Your task to perform on an android device: Clear the shopping cart on bestbuy.com. Search for "usb-b" on bestbuy.com, select the first entry, add it to the cart, then select checkout. Image 0: 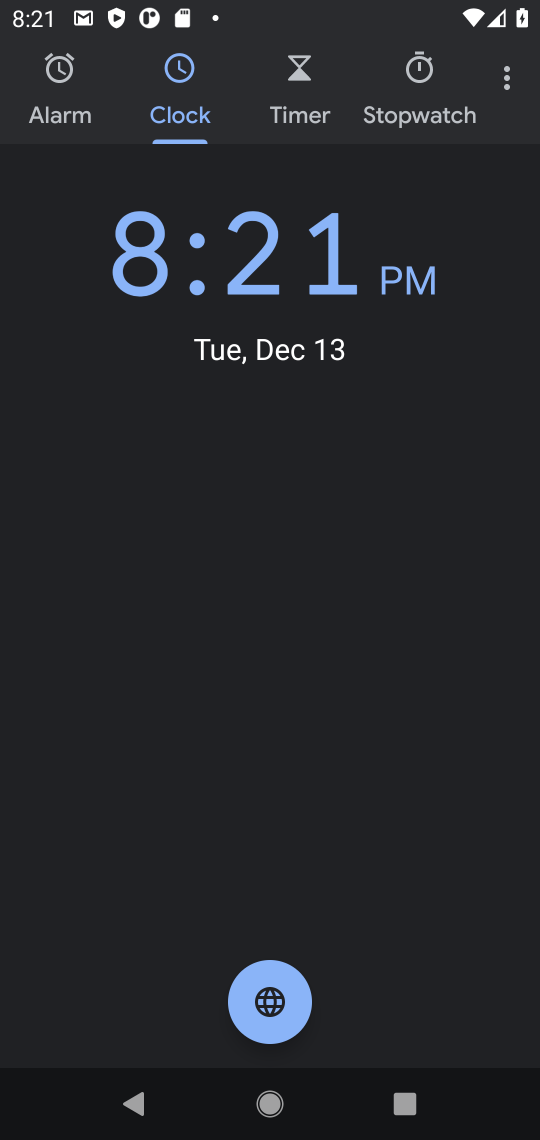
Step 0: press home button
Your task to perform on an android device: Clear the shopping cart on bestbuy.com. Search for "usb-b" on bestbuy.com, select the first entry, add it to the cart, then select checkout. Image 1: 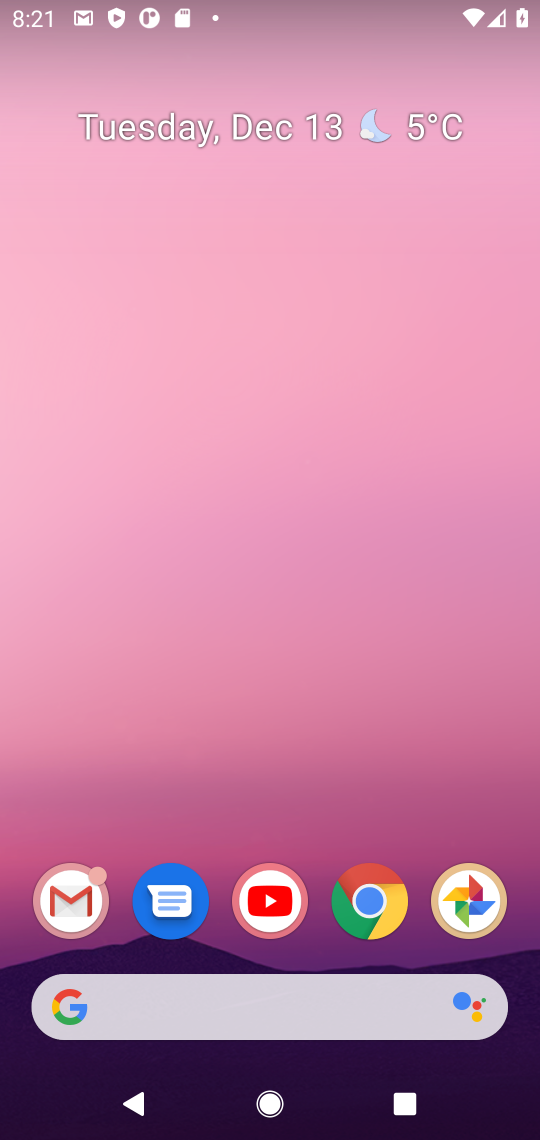
Step 1: click (367, 900)
Your task to perform on an android device: Clear the shopping cart on bestbuy.com. Search for "usb-b" on bestbuy.com, select the first entry, add it to the cart, then select checkout. Image 2: 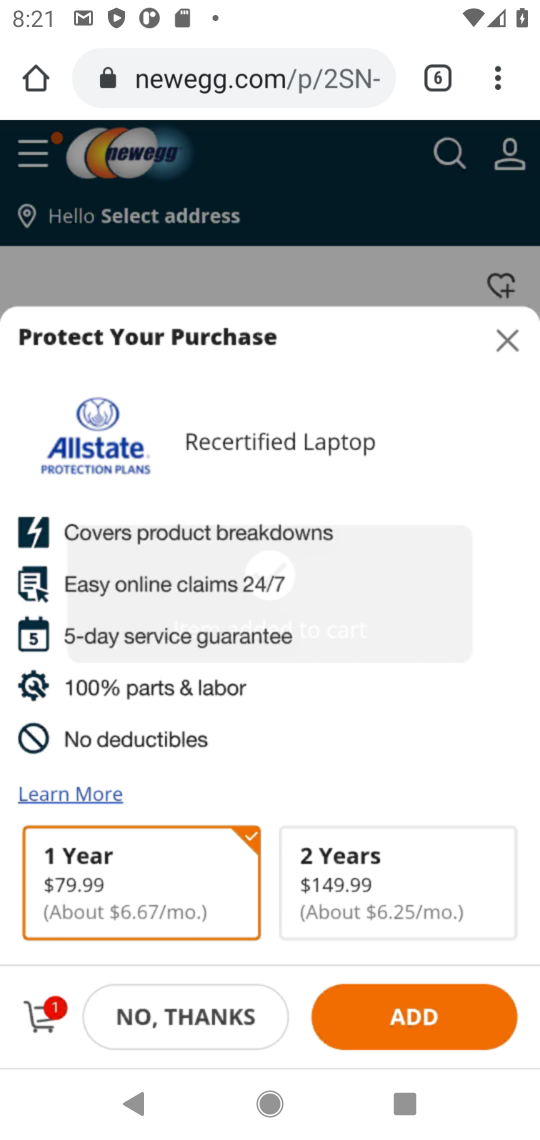
Step 2: click (440, 88)
Your task to perform on an android device: Clear the shopping cart on bestbuy.com. Search for "usb-b" on bestbuy.com, select the first entry, add it to the cart, then select checkout. Image 3: 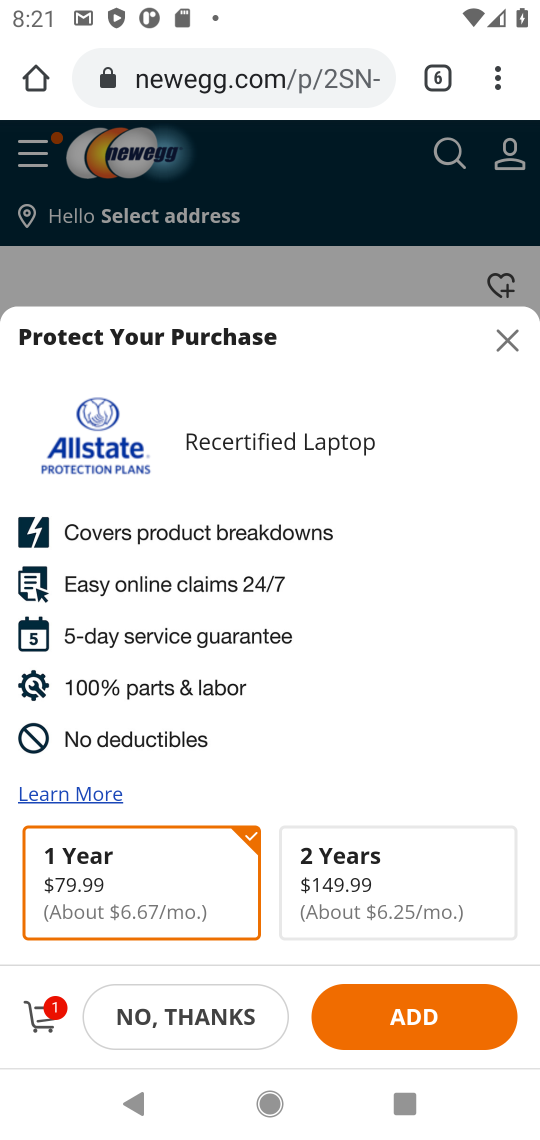
Step 3: click (443, 73)
Your task to perform on an android device: Clear the shopping cart on bestbuy.com. Search for "usb-b" on bestbuy.com, select the first entry, add it to the cart, then select checkout. Image 4: 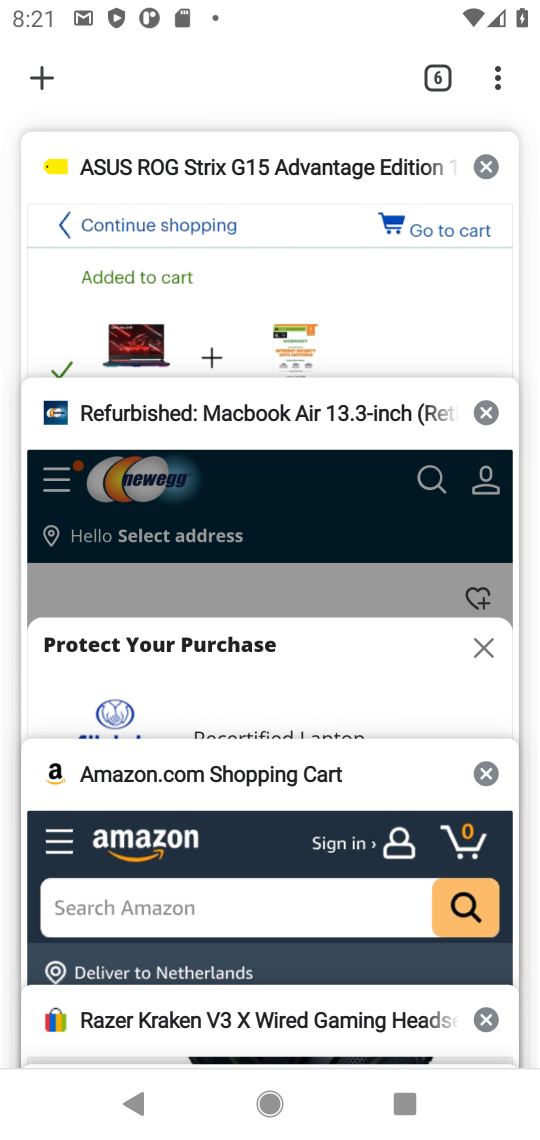
Step 4: click (259, 228)
Your task to perform on an android device: Clear the shopping cart on bestbuy.com. Search for "usb-b" on bestbuy.com, select the first entry, add it to the cart, then select checkout. Image 5: 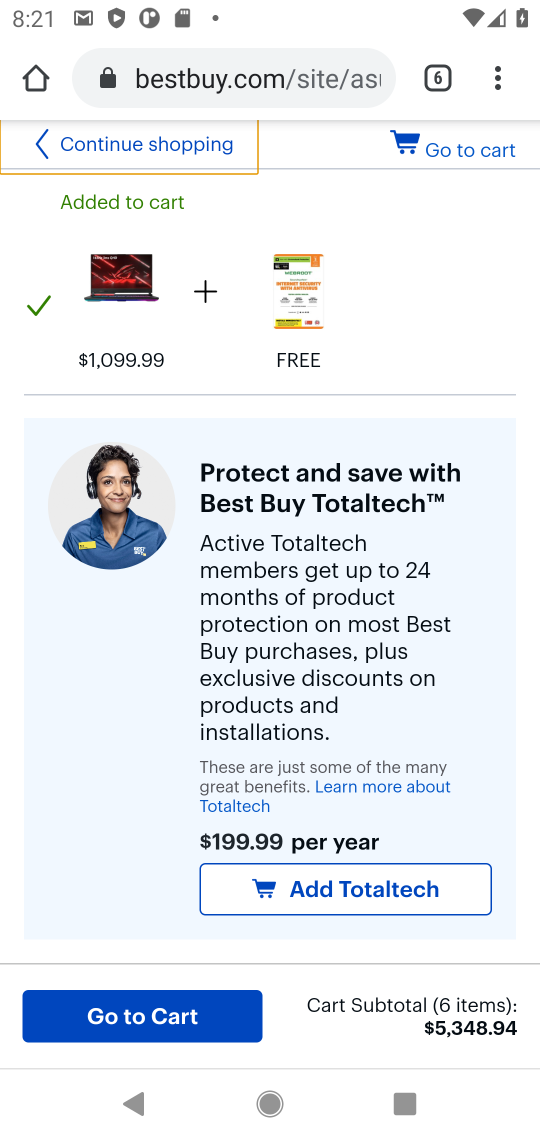
Step 5: click (196, 146)
Your task to perform on an android device: Clear the shopping cart on bestbuy.com. Search for "usb-b" on bestbuy.com, select the first entry, add it to the cart, then select checkout. Image 6: 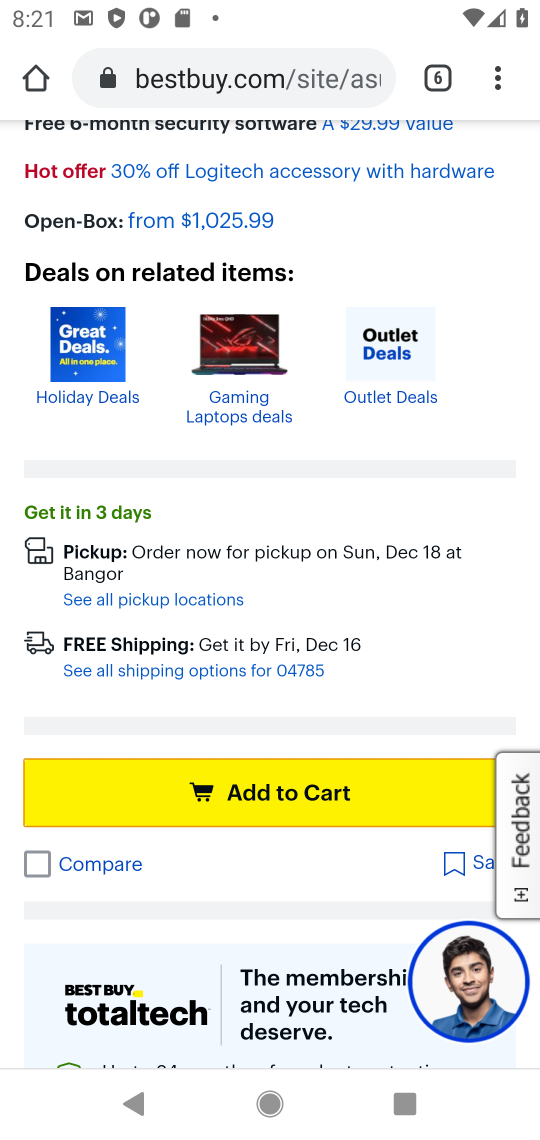
Step 6: drag from (374, 256) to (455, 819)
Your task to perform on an android device: Clear the shopping cart on bestbuy.com. Search for "usb-b" on bestbuy.com, select the first entry, add it to the cart, then select checkout. Image 7: 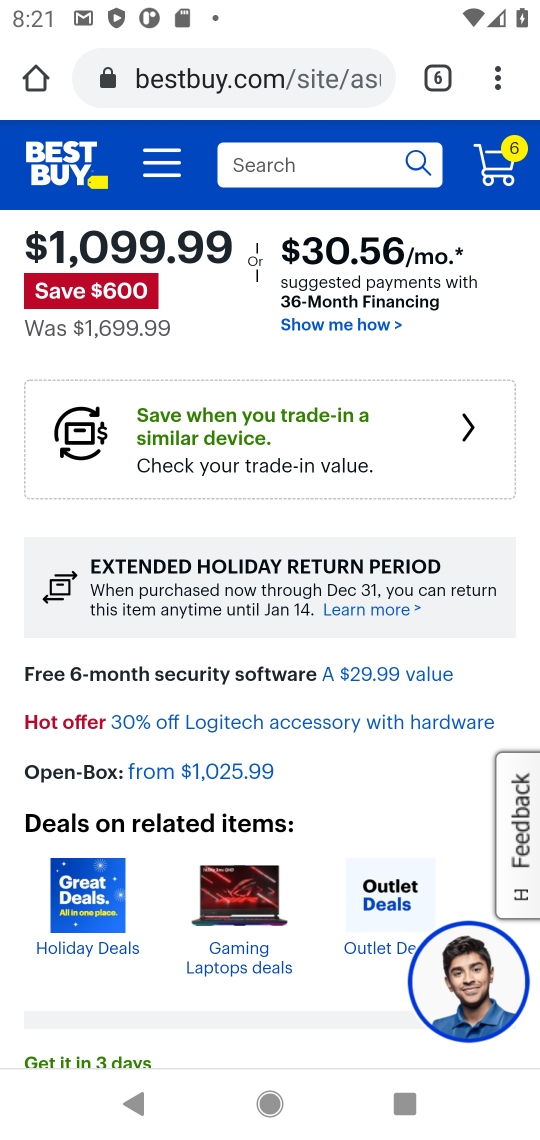
Step 7: click (348, 175)
Your task to perform on an android device: Clear the shopping cart on bestbuy.com. Search for "usb-b" on bestbuy.com, select the first entry, add it to the cart, then select checkout. Image 8: 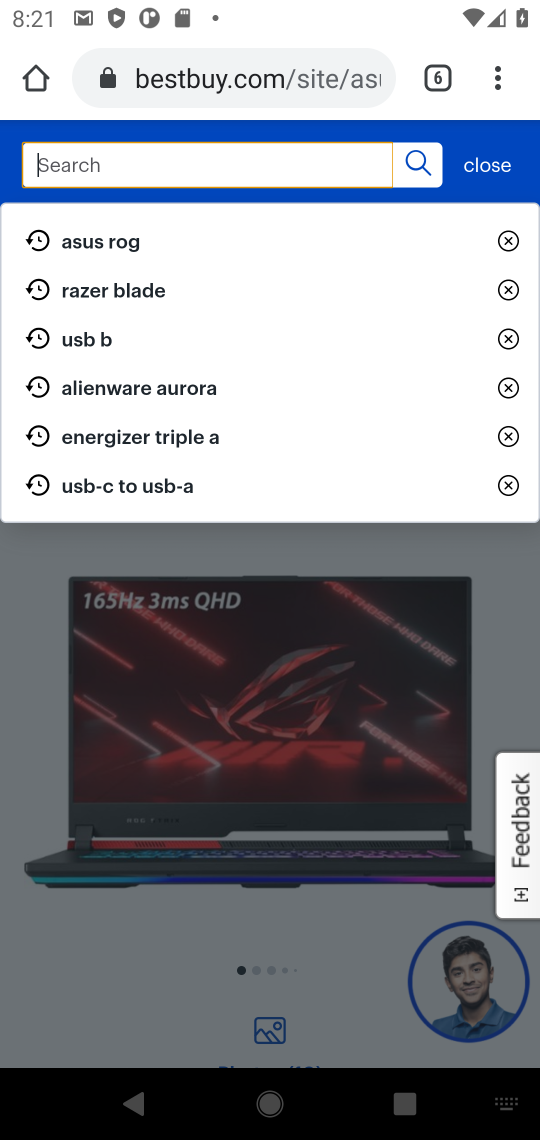
Step 8: type "usb-b"
Your task to perform on an android device: Clear the shopping cart on bestbuy.com. Search for "usb-b" on bestbuy.com, select the first entry, add it to the cart, then select checkout. Image 9: 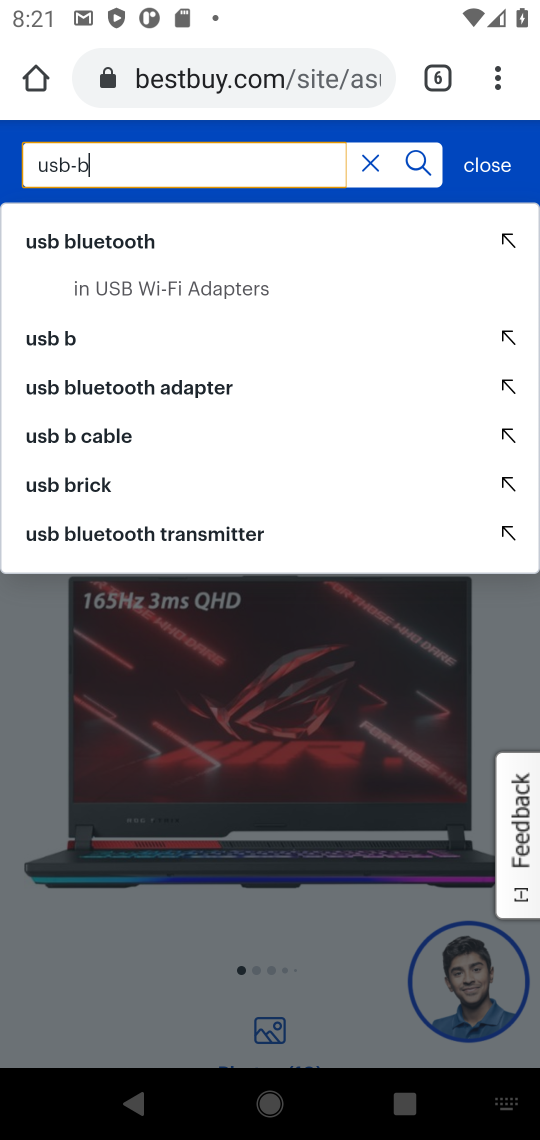
Step 9: click (55, 338)
Your task to perform on an android device: Clear the shopping cart on bestbuy.com. Search for "usb-b" on bestbuy.com, select the first entry, add it to the cart, then select checkout. Image 10: 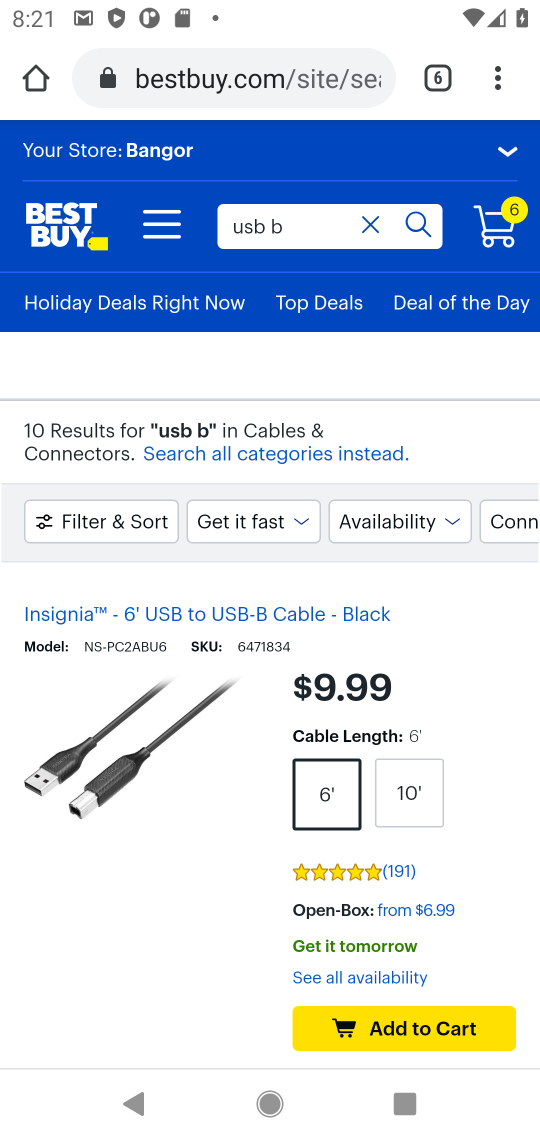
Step 10: click (412, 1024)
Your task to perform on an android device: Clear the shopping cart on bestbuy.com. Search for "usb-b" on bestbuy.com, select the first entry, add it to the cart, then select checkout. Image 11: 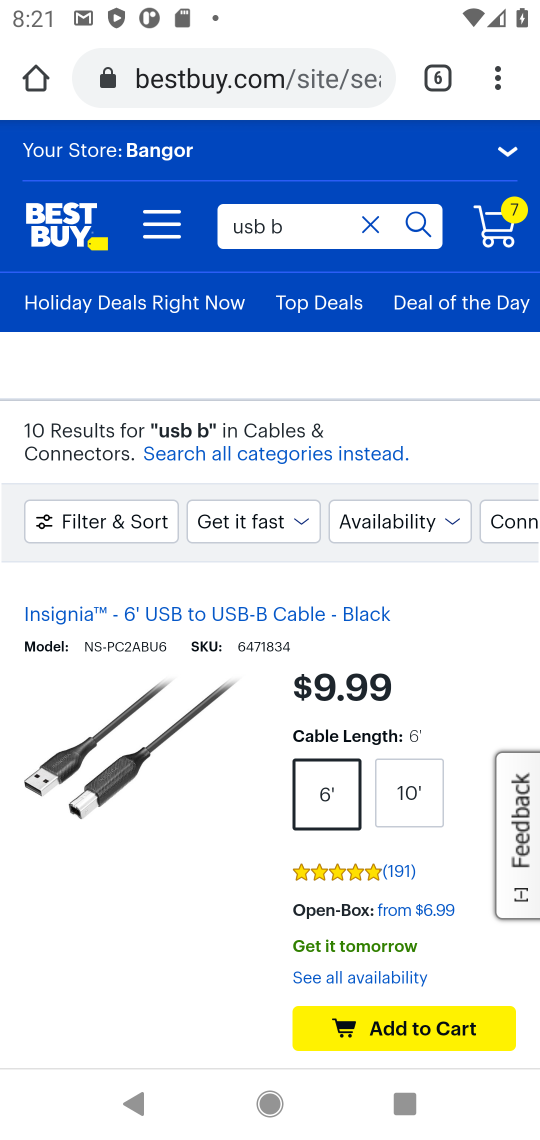
Step 11: click (502, 223)
Your task to perform on an android device: Clear the shopping cart on bestbuy.com. Search for "usb-b" on bestbuy.com, select the first entry, add it to the cart, then select checkout. Image 12: 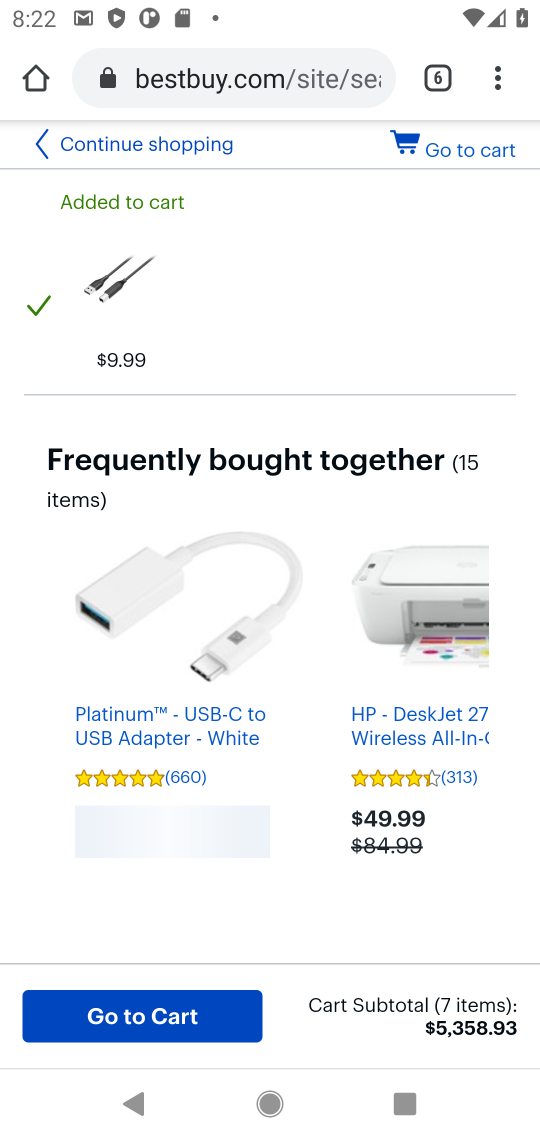
Step 12: click (120, 1012)
Your task to perform on an android device: Clear the shopping cart on bestbuy.com. Search for "usb-b" on bestbuy.com, select the first entry, add it to the cart, then select checkout. Image 13: 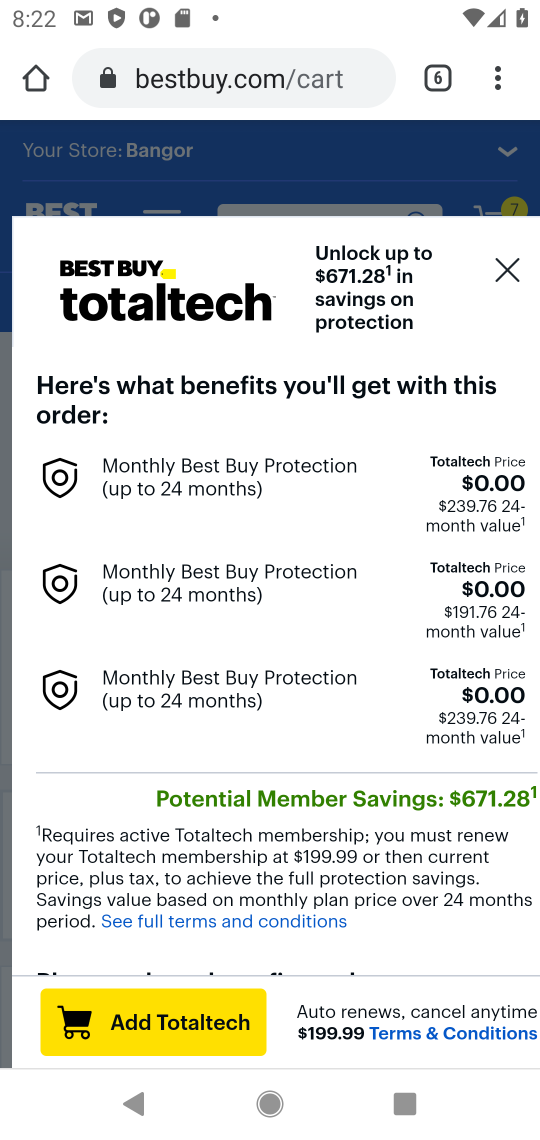
Step 13: drag from (302, 952) to (350, 524)
Your task to perform on an android device: Clear the shopping cart on bestbuy.com. Search for "usb-b" on bestbuy.com, select the first entry, add it to the cart, then select checkout. Image 14: 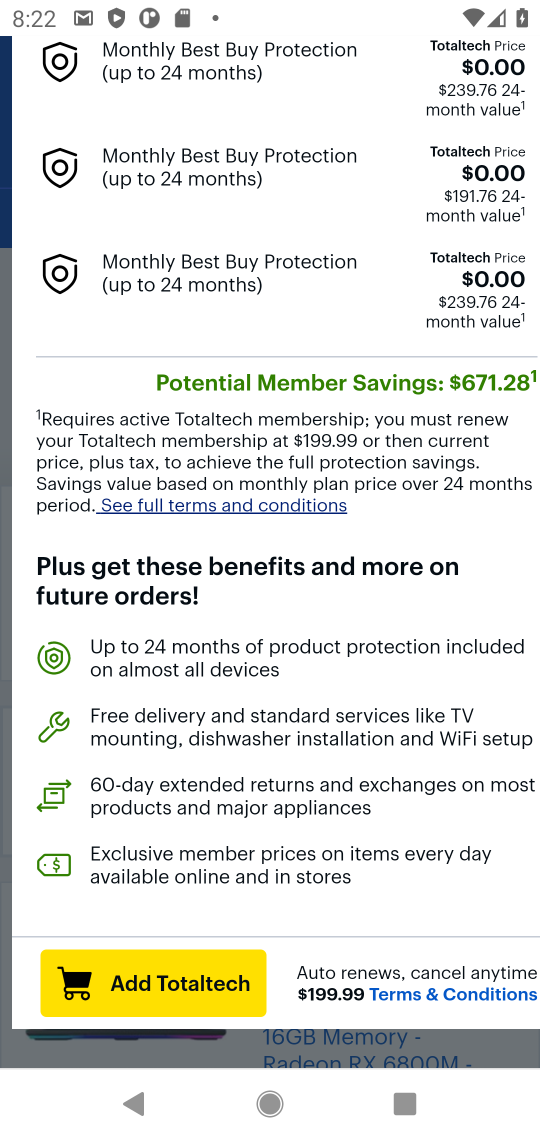
Step 14: drag from (432, 253) to (405, 682)
Your task to perform on an android device: Clear the shopping cart on bestbuy.com. Search for "usb-b" on bestbuy.com, select the first entry, add it to the cart, then select checkout. Image 15: 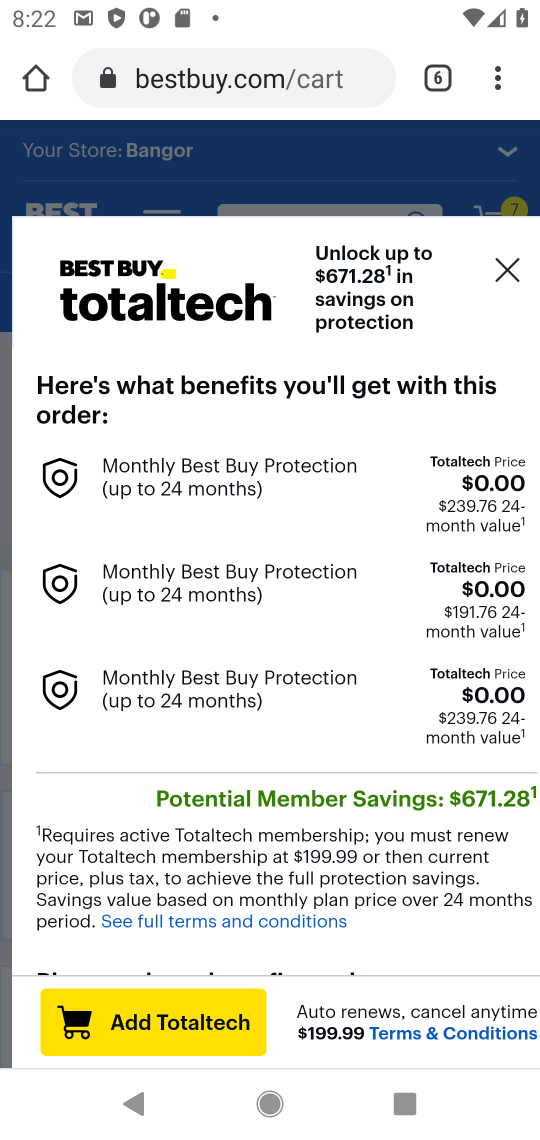
Step 15: click (513, 269)
Your task to perform on an android device: Clear the shopping cart on bestbuy.com. Search for "usb-b" on bestbuy.com, select the first entry, add it to the cart, then select checkout. Image 16: 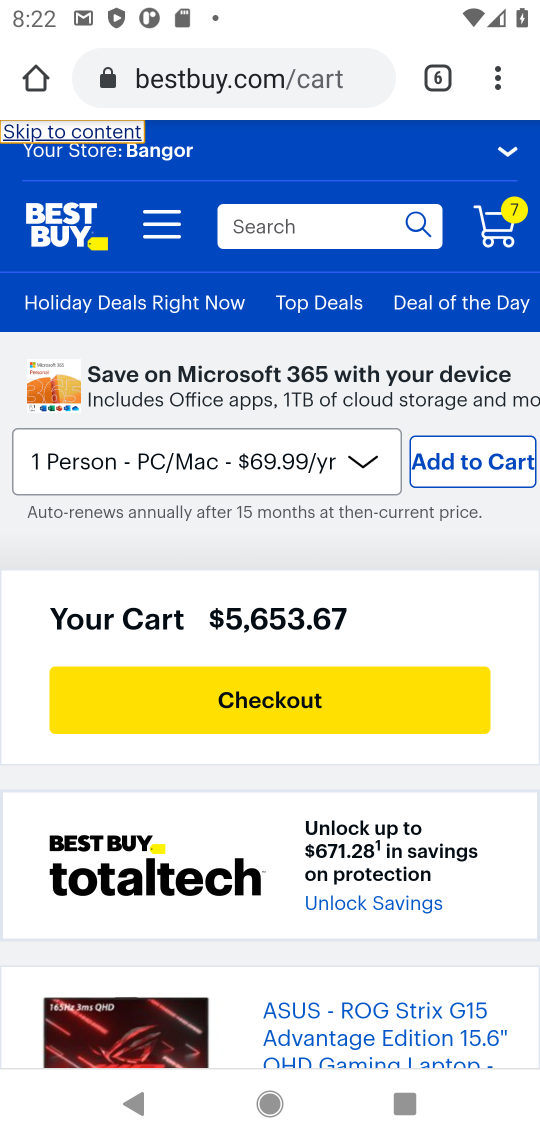
Step 16: drag from (275, 908) to (283, 354)
Your task to perform on an android device: Clear the shopping cart on bestbuy.com. Search for "usb-b" on bestbuy.com, select the first entry, add it to the cart, then select checkout. Image 17: 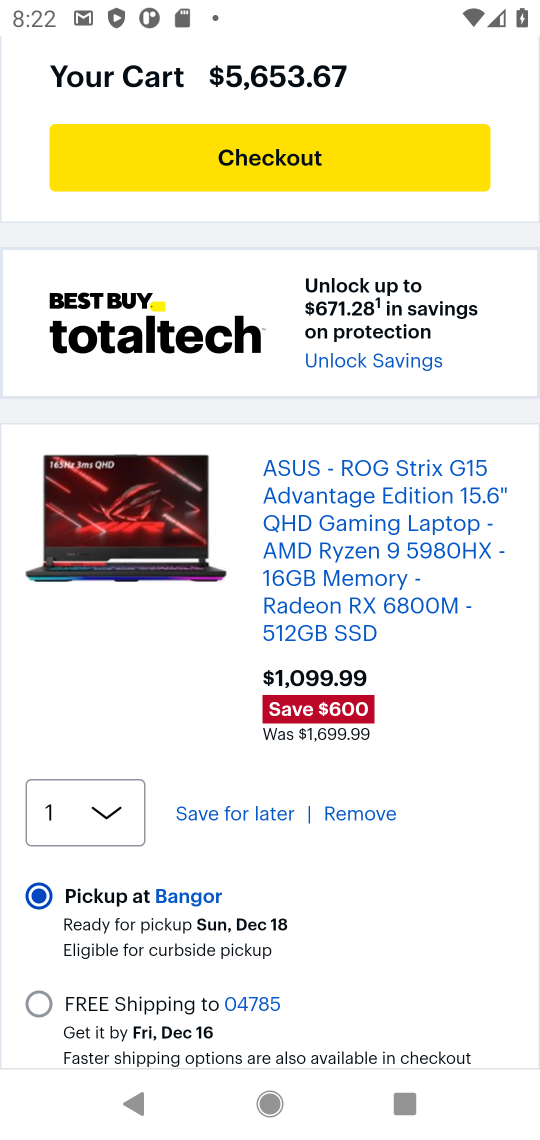
Step 17: click (356, 812)
Your task to perform on an android device: Clear the shopping cart on bestbuy.com. Search for "usb-b" on bestbuy.com, select the first entry, add it to the cart, then select checkout. Image 18: 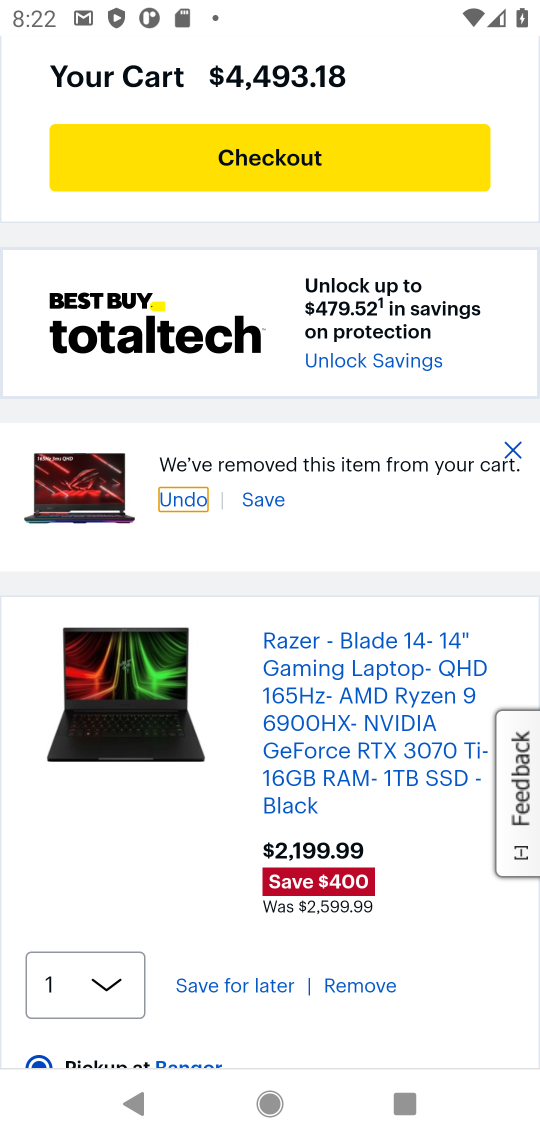
Step 18: click (356, 982)
Your task to perform on an android device: Clear the shopping cart on bestbuy.com. Search for "usb-b" on bestbuy.com, select the first entry, add it to the cart, then select checkout. Image 19: 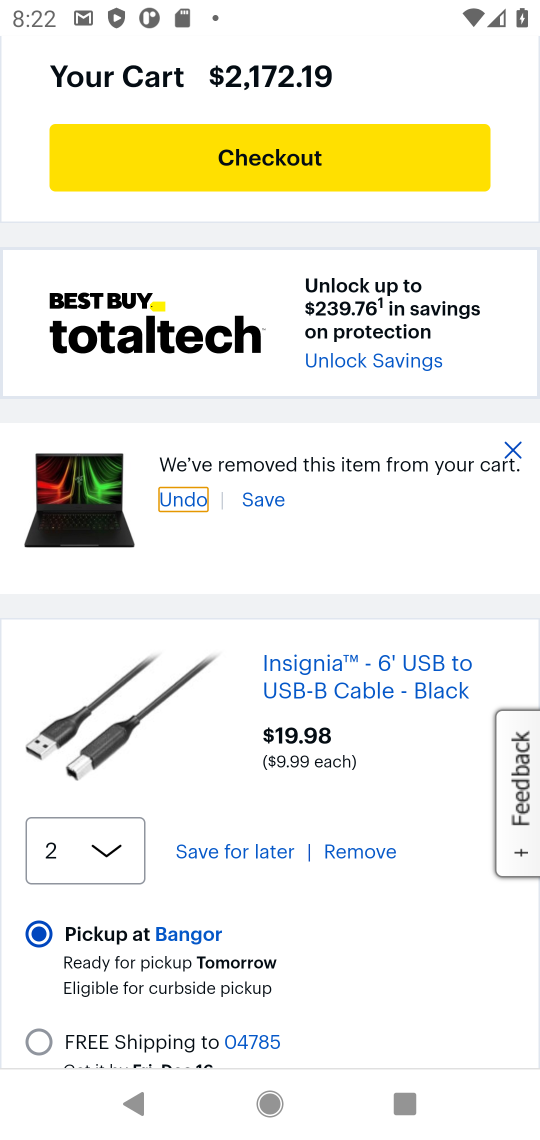
Step 19: click (363, 845)
Your task to perform on an android device: Clear the shopping cart on bestbuy.com. Search for "usb-b" on bestbuy.com, select the first entry, add it to the cart, then select checkout. Image 20: 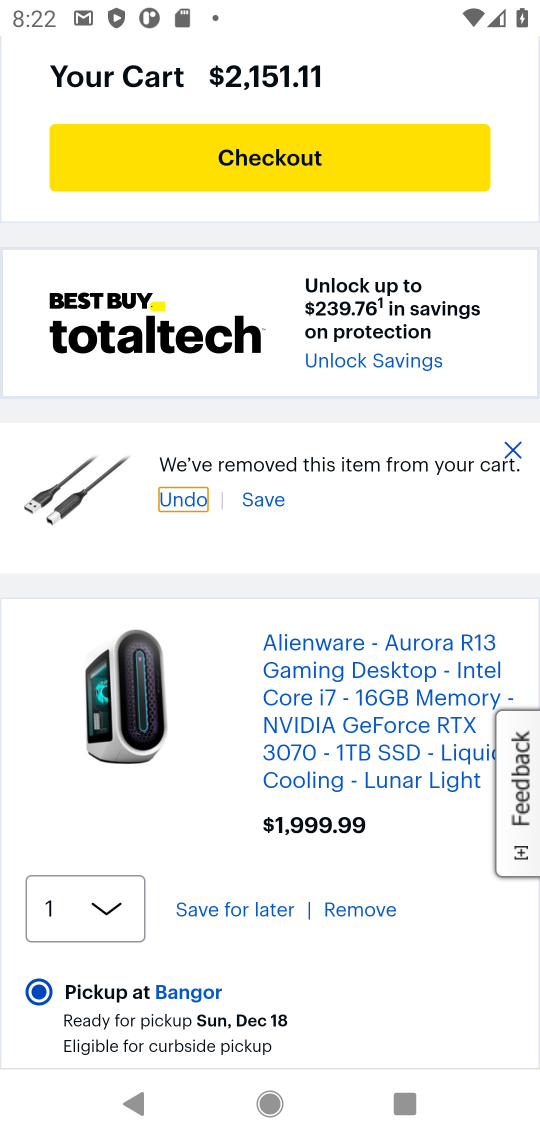
Step 20: click (357, 906)
Your task to perform on an android device: Clear the shopping cart on bestbuy.com. Search for "usb-b" on bestbuy.com, select the first entry, add it to the cart, then select checkout. Image 21: 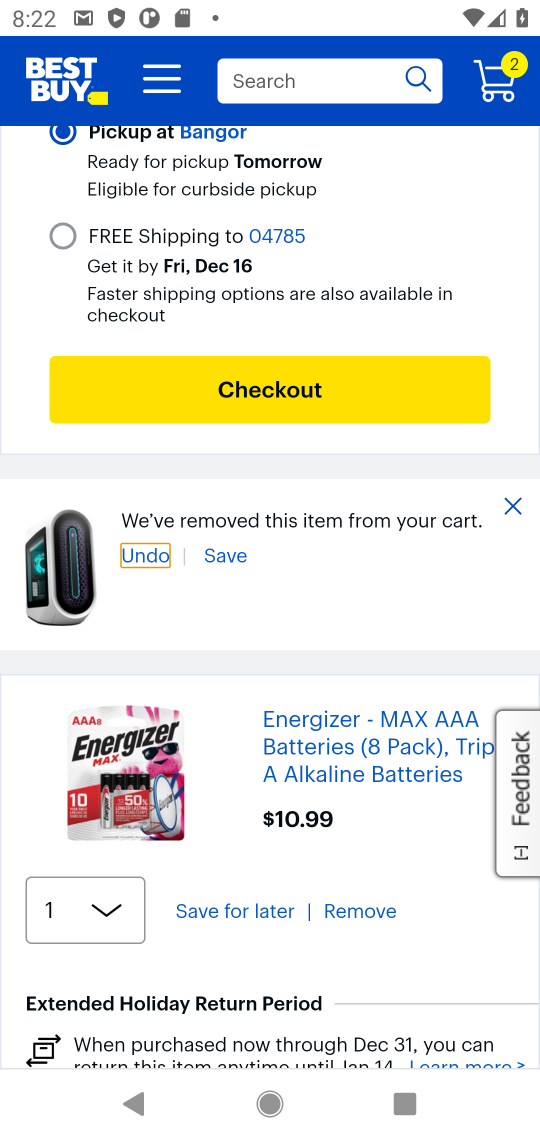
Step 21: click (357, 906)
Your task to perform on an android device: Clear the shopping cart on bestbuy.com. Search for "usb-b" on bestbuy.com, select the first entry, add it to the cart, then select checkout. Image 22: 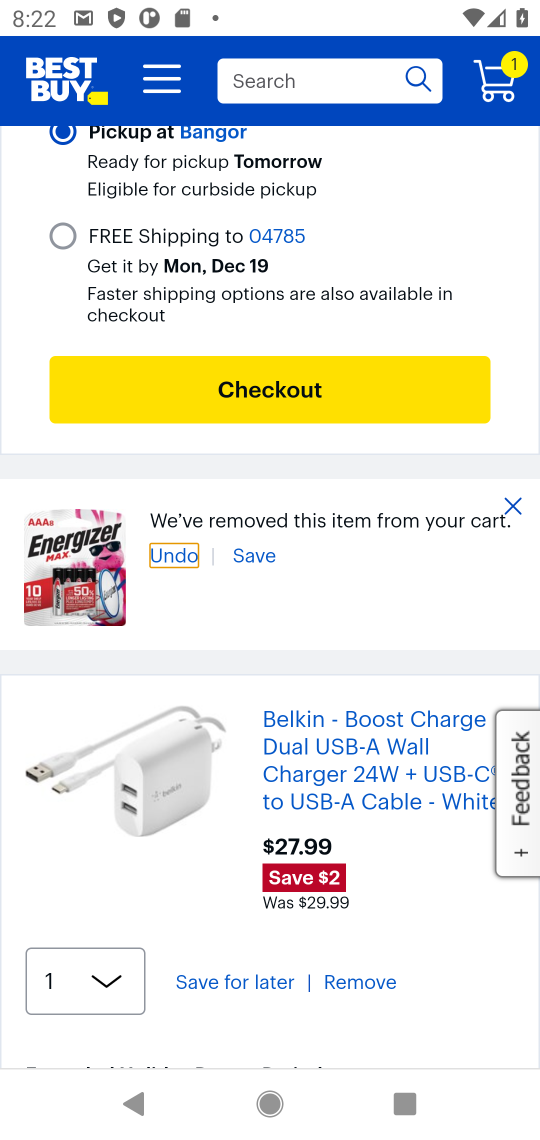
Step 22: click (377, 982)
Your task to perform on an android device: Clear the shopping cart on bestbuy.com. Search for "usb-b" on bestbuy.com, select the first entry, add it to the cart, then select checkout. Image 23: 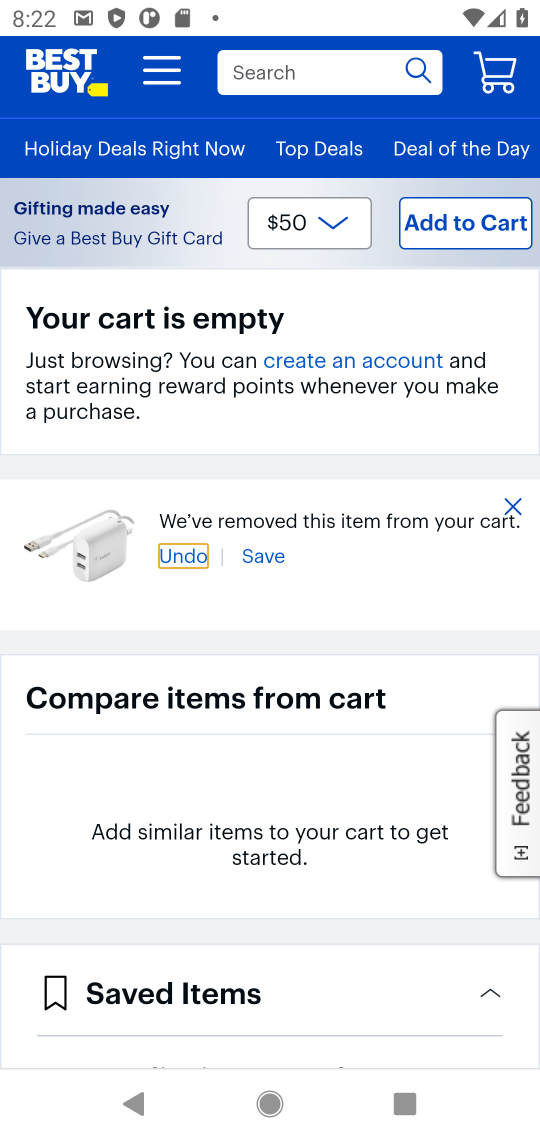
Step 23: press back button
Your task to perform on an android device: Clear the shopping cart on bestbuy.com. Search for "usb-b" on bestbuy.com, select the first entry, add it to the cart, then select checkout. Image 24: 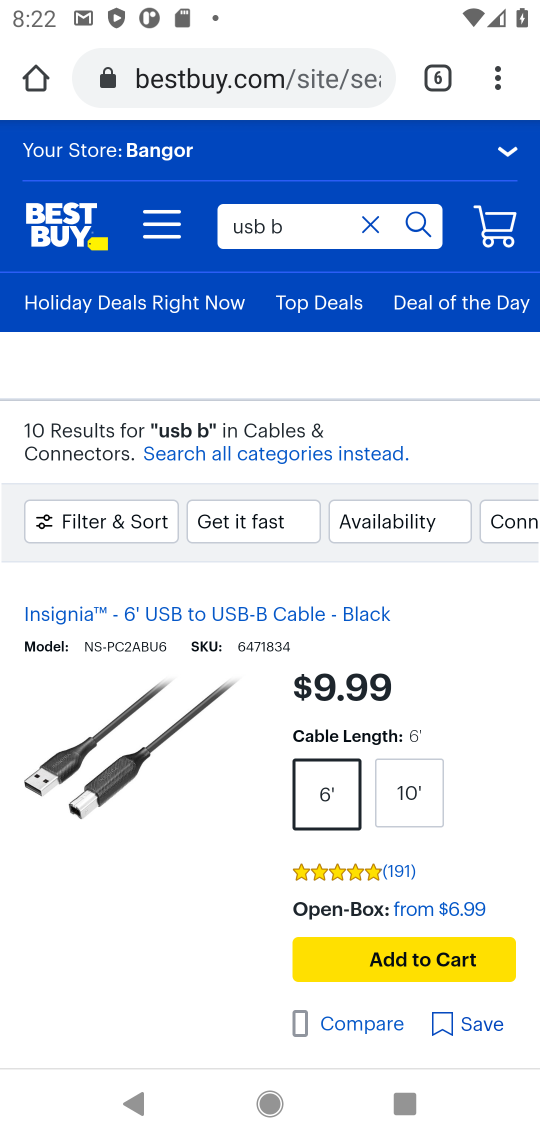
Step 24: click (432, 922)
Your task to perform on an android device: Clear the shopping cart on bestbuy.com. Search for "usb-b" on bestbuy.com, select the first entry, add it to the cart, then select checkout. Image 25: 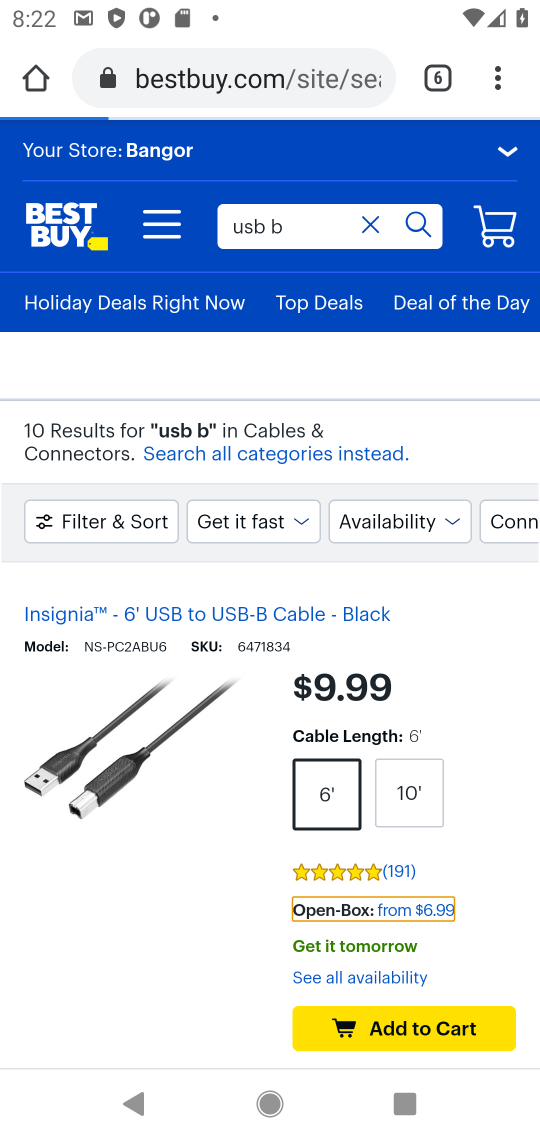
Step 25: click (445, 1026)
Your task to perform on an android device: Clear the shopping cart on bestbuy.com. Search for "usb-b" on bestbuy.com, select the first entry, add it to the cart, then select checkout. Image 26: 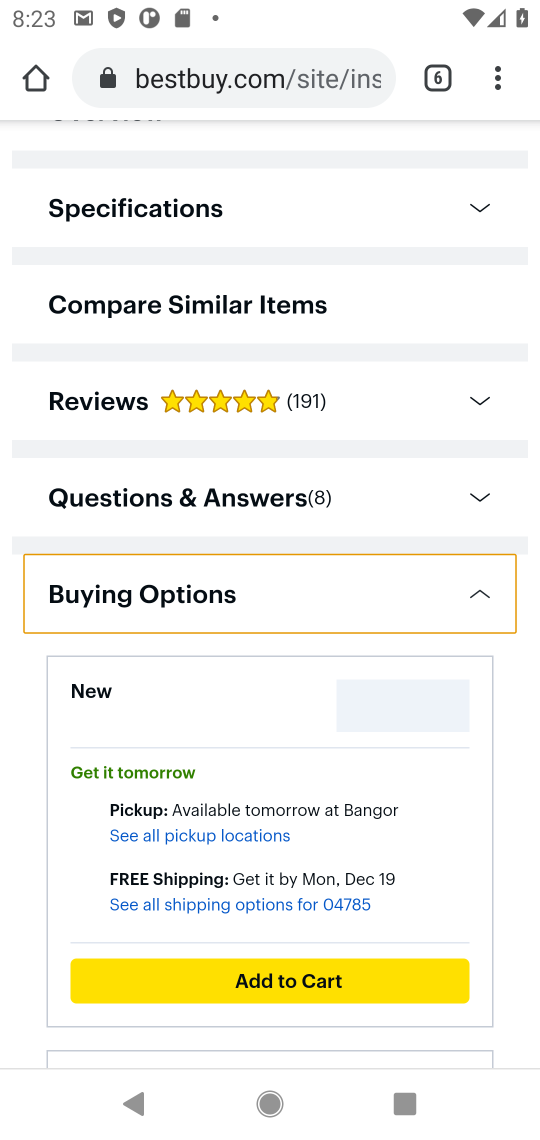
Step 26: task complete